Your task to perform on an android device: delete browsing data in the chrome app Image 0: 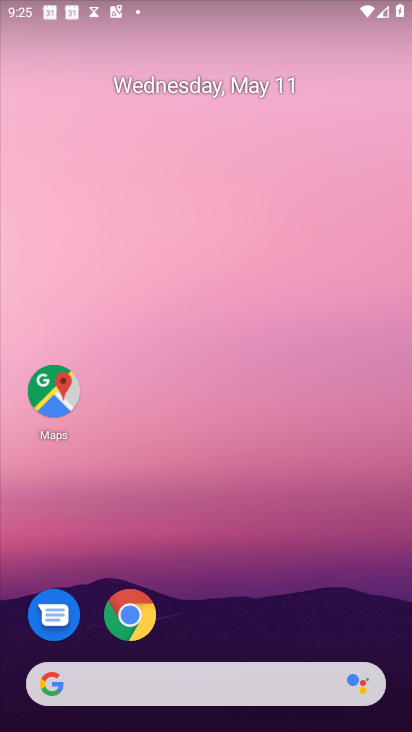
Step 0: click (115, 614)
Your task to perform on an android device: delete browsing data in the chrome app Image 1: 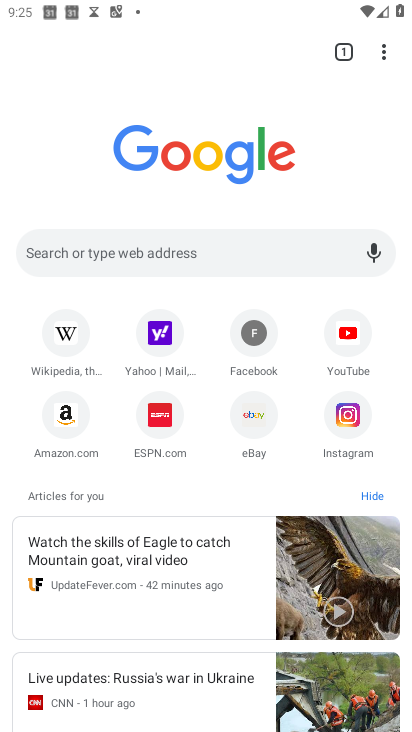
Step 1: click (387, 51)
Your task to perform on an android device: delete browsing data in the chrome app Image 2: 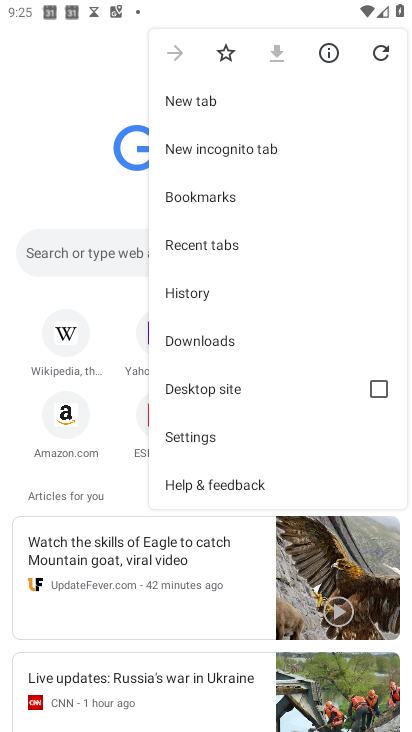
Step 2: click (180, 421)
Your task to perform on an android device: delete browsing data in the chrome app Image 3: 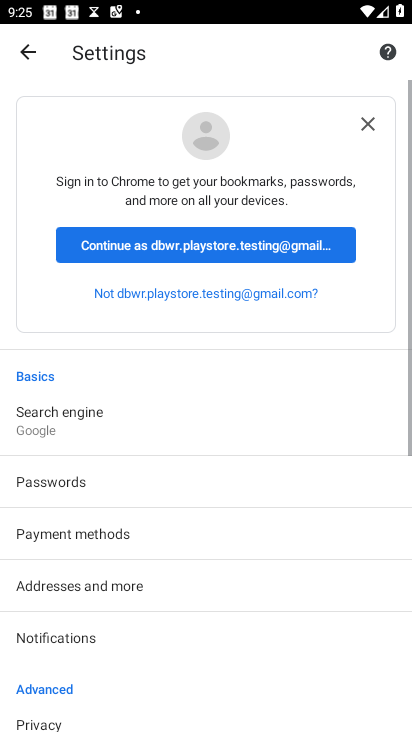
Step 3: drag from (23, 719) to (240, 241)
Your task to perform on an android device: delete browsing data in the chrome app Image 4: 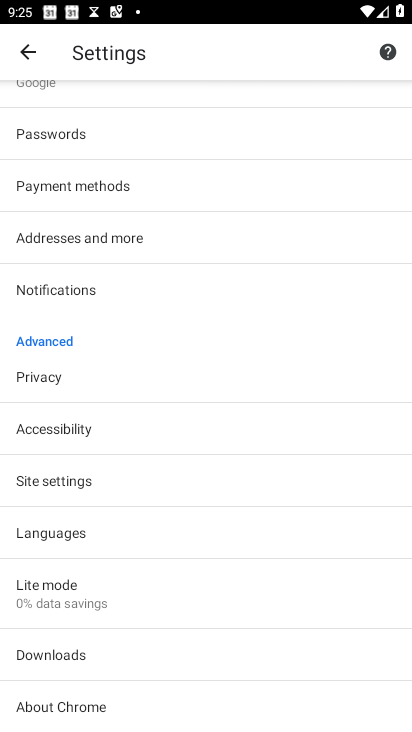
Step 4: click (86, 382)
Your task to perform on an android device: delete browsing data in the chrome app Image 5: 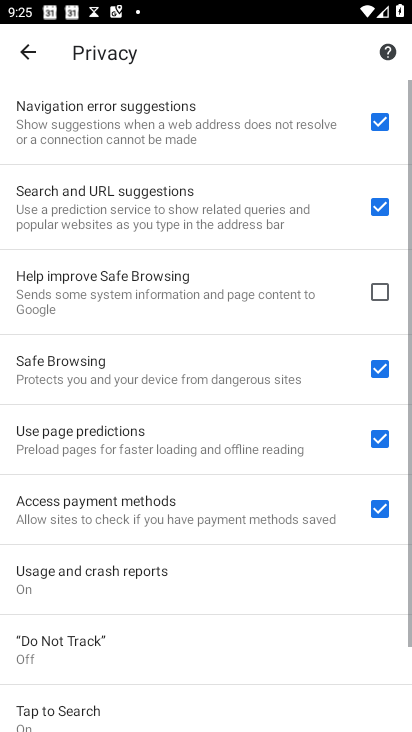
Step 5: drag from (132, 642) to (309, 169)
Your task to perform on an android device: delete browsing data in the chrome app Image 6: 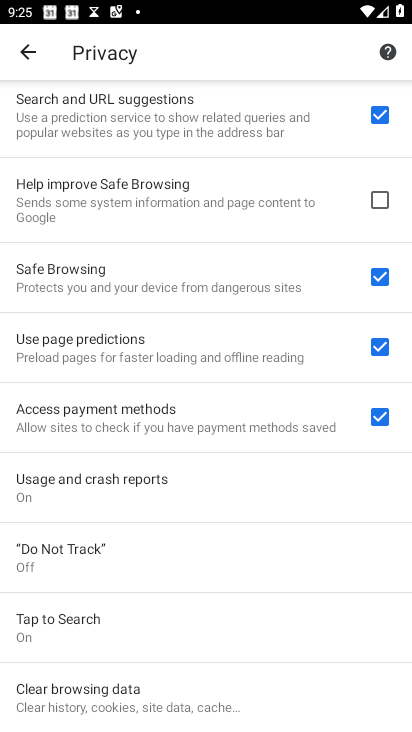
Step 6: click (165, 691)
Your task to perform on an android device: delete browsing data in the chrome app Image 7: 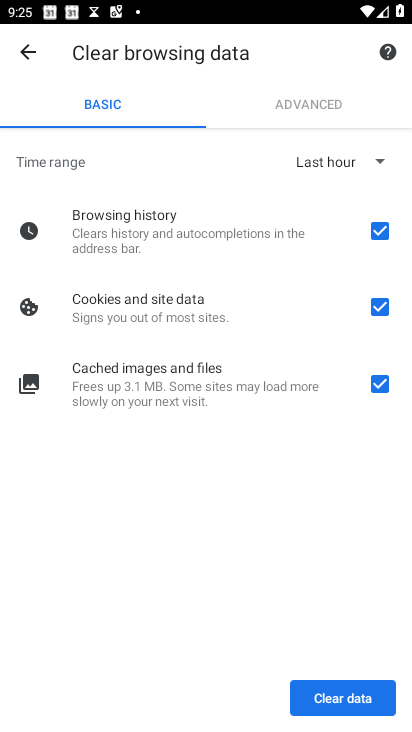
Step 7: click (351, 687)
Your task to perform on an android device: delete browsing data in the chrome app Image 8: 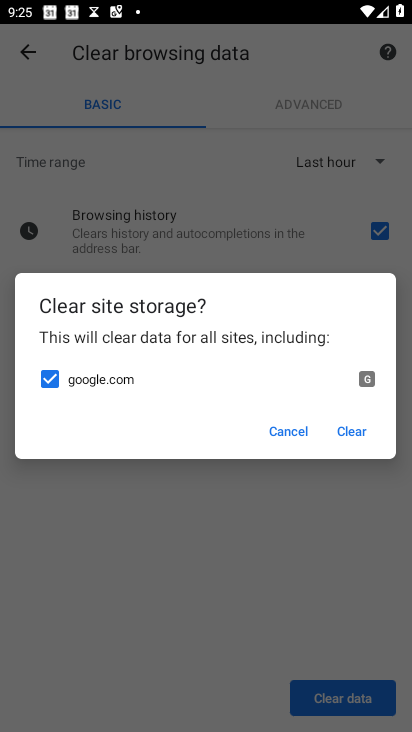
Step 8: click (358, 430)
Your task to perform on an android device: delete browsing data in the chrome app Image 9: 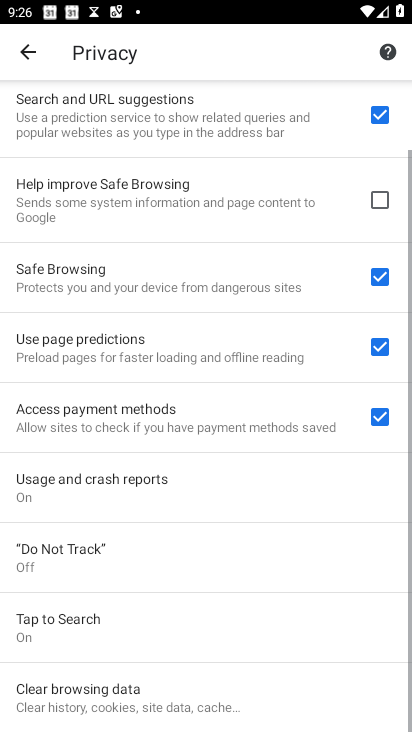
Step 9: task complete